Your task to perform on an android device: Go to eBay Image 0: 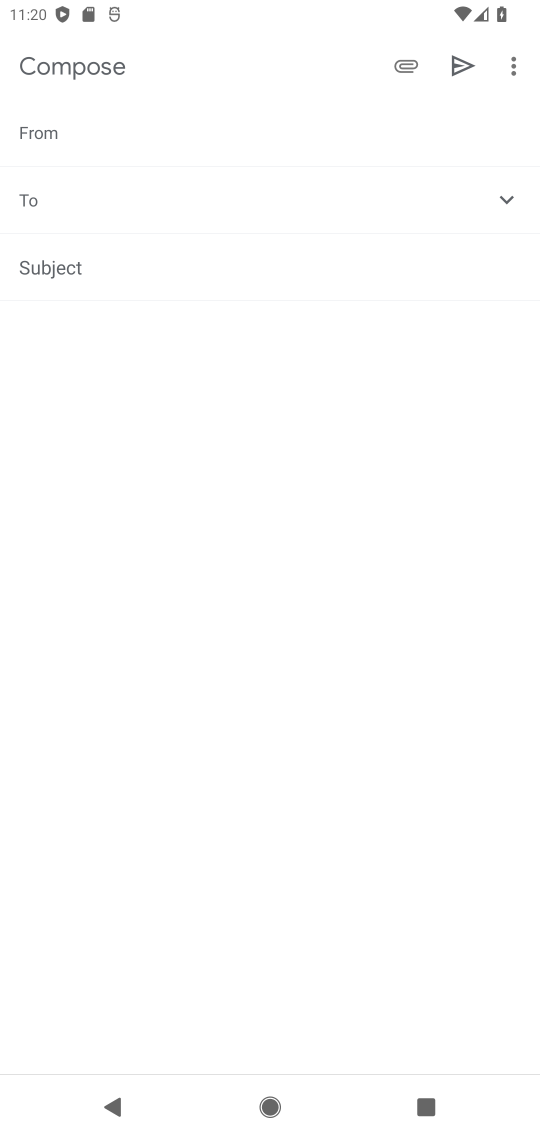
Step 0: click (379, 0)
Your task to perform on an android device: Go to eBay Image 1: 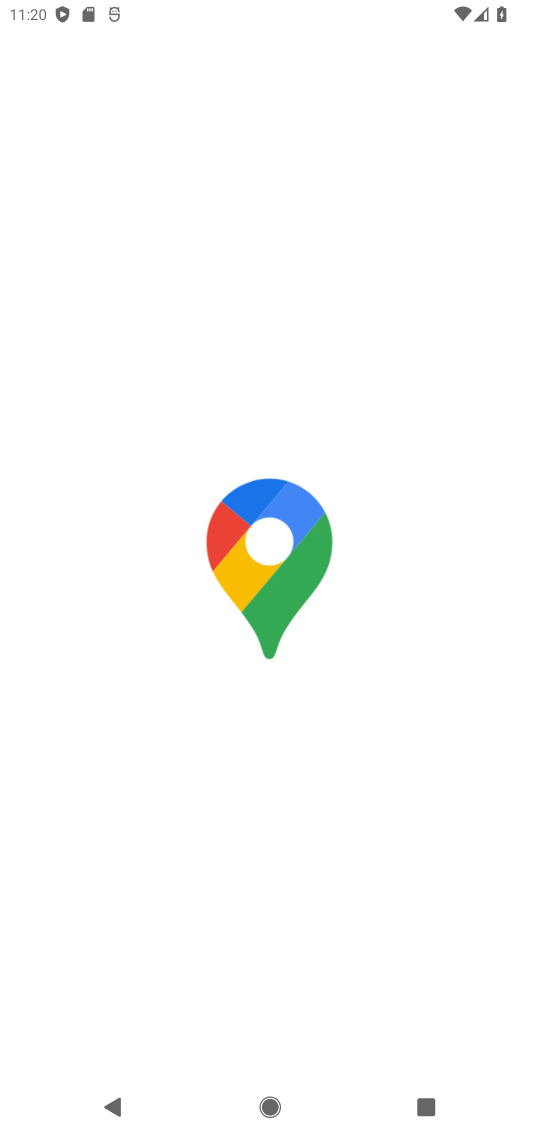
Step 1: press home button
Your task to perform on an android device: Go to eBay Image 2: 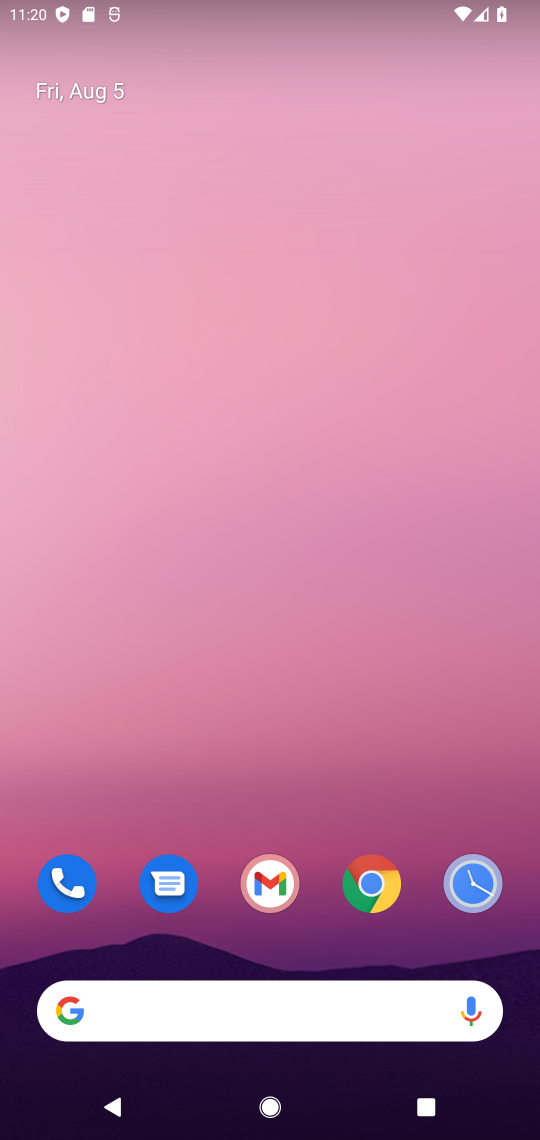
Step 2: click (374, 882)
Your task to perform on an android device: Go to eBay Image 3: 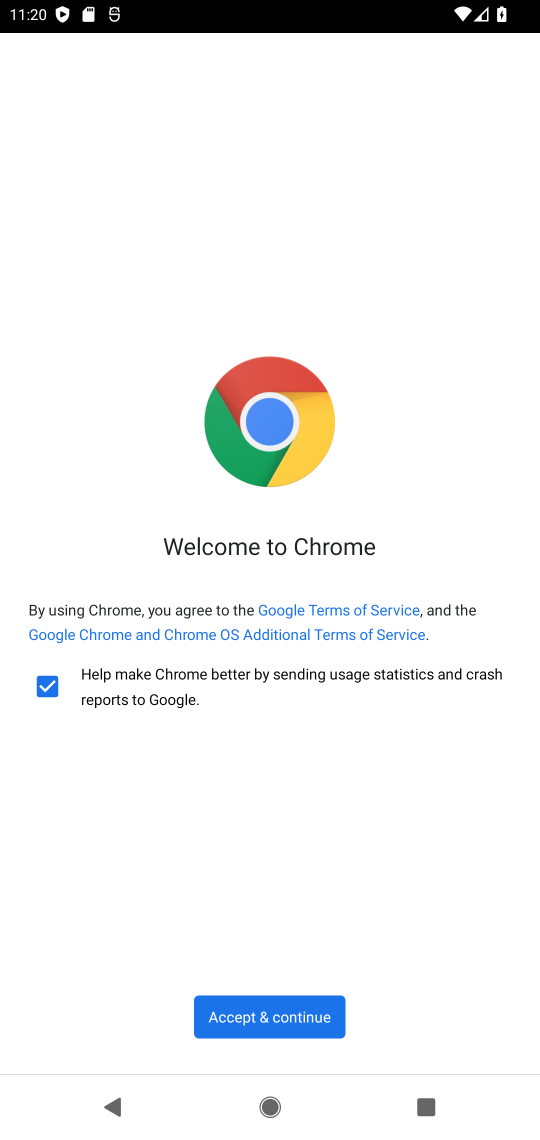
Step 3: click (242, 1013)
Your task to perform on an android device: Go to eBay Image 4: 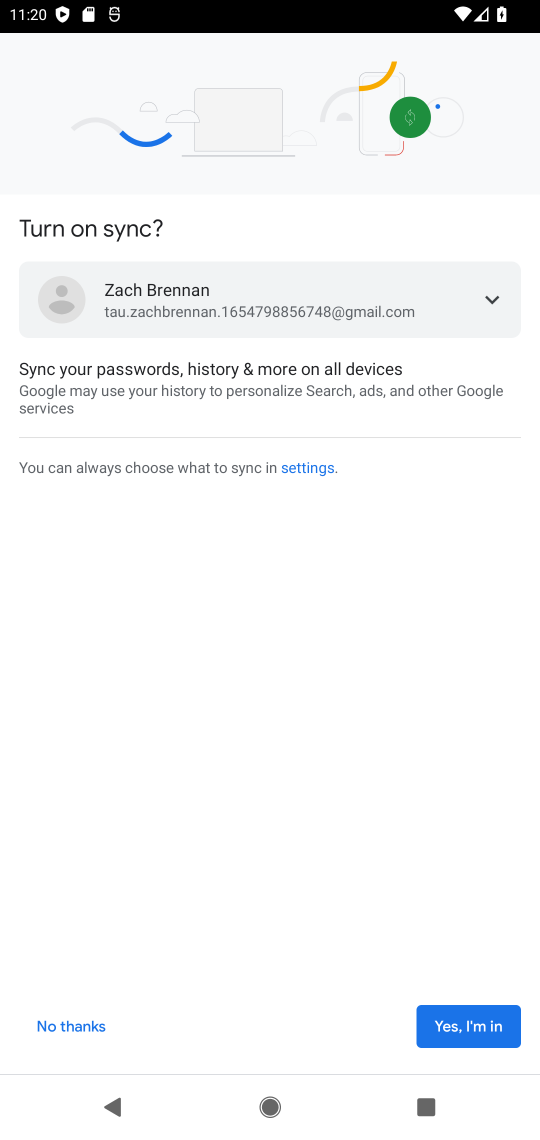
Step 4: click (485, 1030)
Your task to perform on an android device: Go to eBay Image 5: 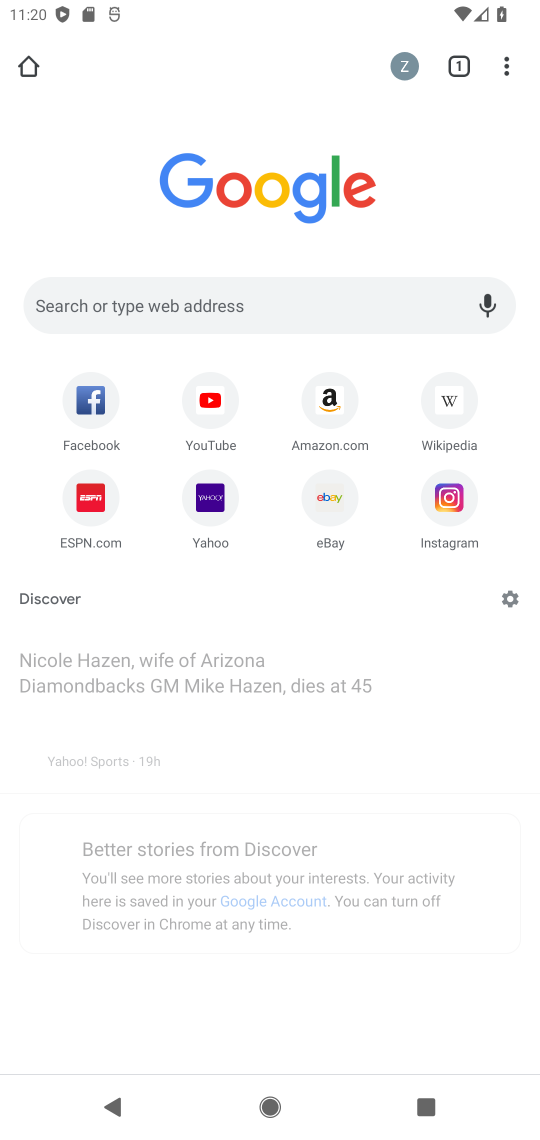
Step 5: click (322, 511)
Your task to perform on an android device: Go to eBay Image 6: 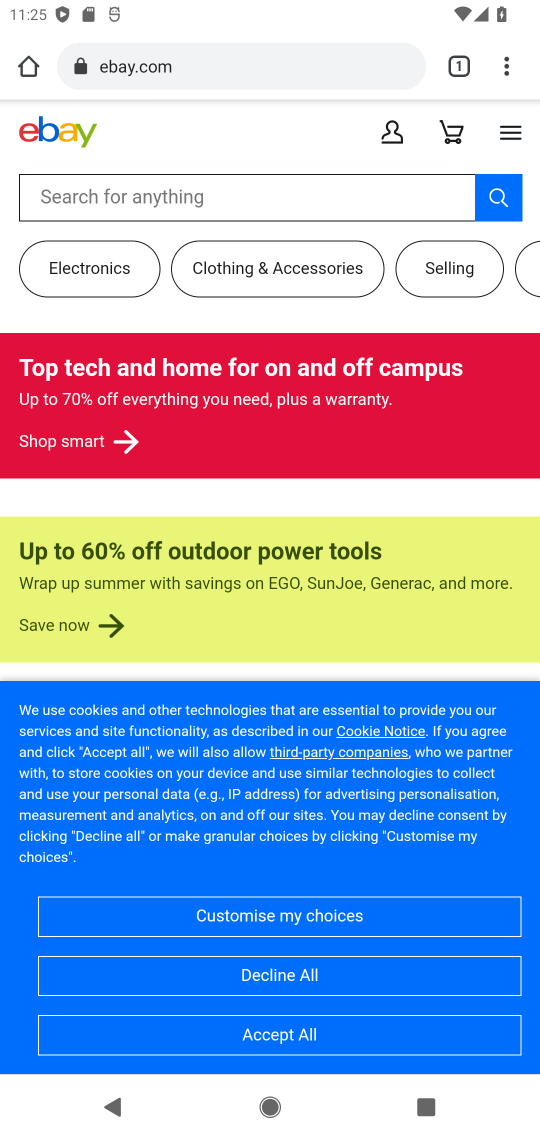
Step 6: task complete